Your task to perform on an android device: install app "Airtel Thanks" Image 0: 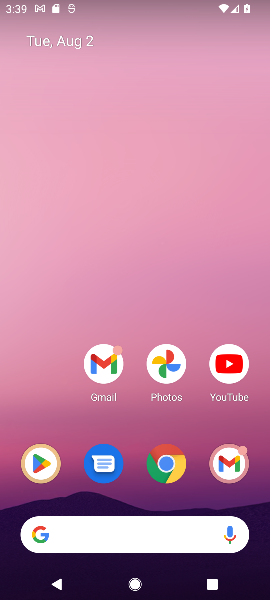
Step 0: click (36, 462)
Your task to perform on an android device: install app "Airtel Thanks" Image 1: 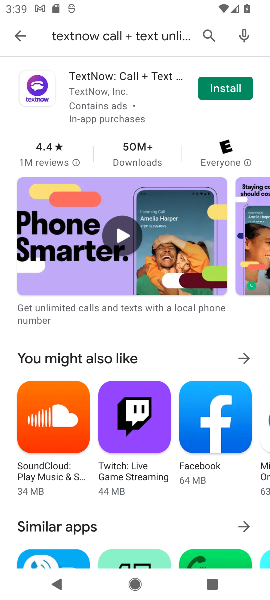
Step 1: click (207, 33)
Your task to perform on an android device: install app "Airtel Thanks" Image 2: 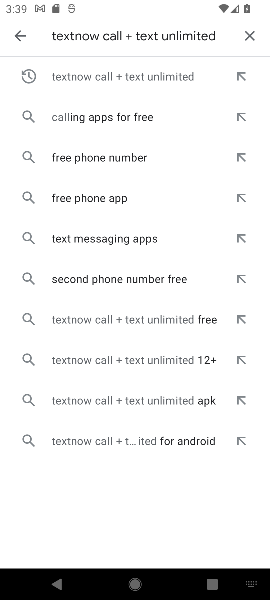
Step 2: click (253, 30)
Your task to perform on an android device: install app "Airtel Thanks" Image 3: 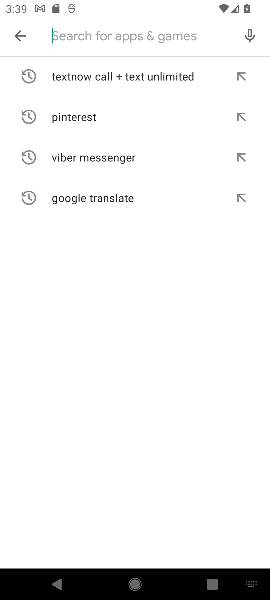
Step 3: type "Airtel Thanks"
Your task to perform on an android device: install app "Airtel Thanks" Image 4: 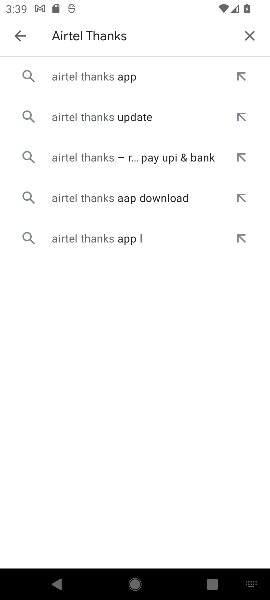
Step 4: click (105, 74)
Your task to perform on an android device: install app "Airtel Thanks" Image 5: 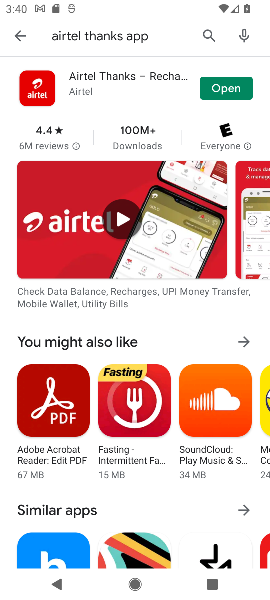
Step 5: task complete